Your task to perform on an android device: clear all cookies in the chrome app Image 0: 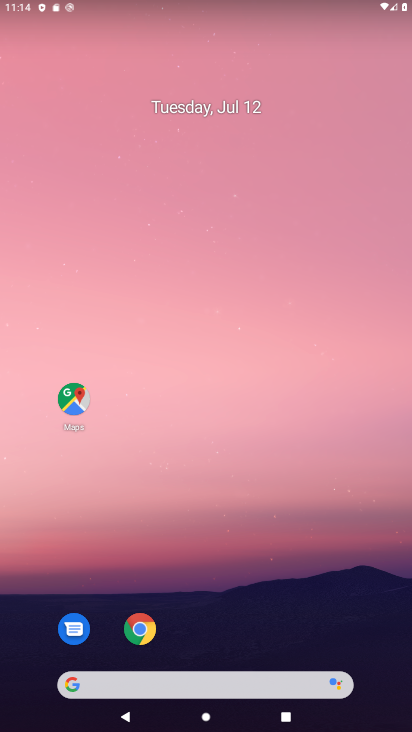
Step 0: drag from (222, 189) to (157, 140)
Your task to perform on an android device: clear all cookies in the chrome app Image 1: 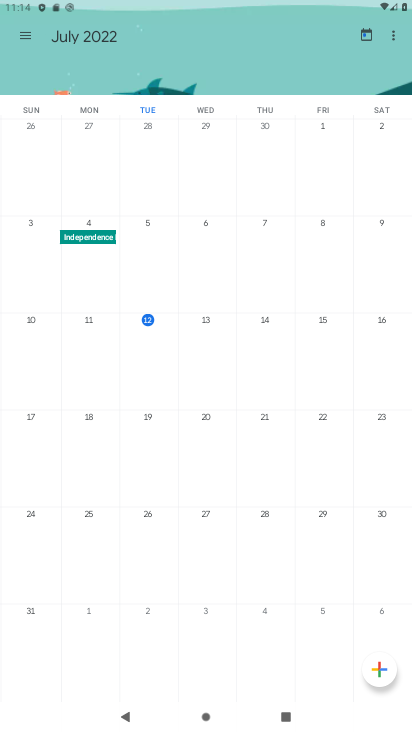
Step 1: press home button
Your task to perform on an android device: clear all cookies in the chrome app Image 2: 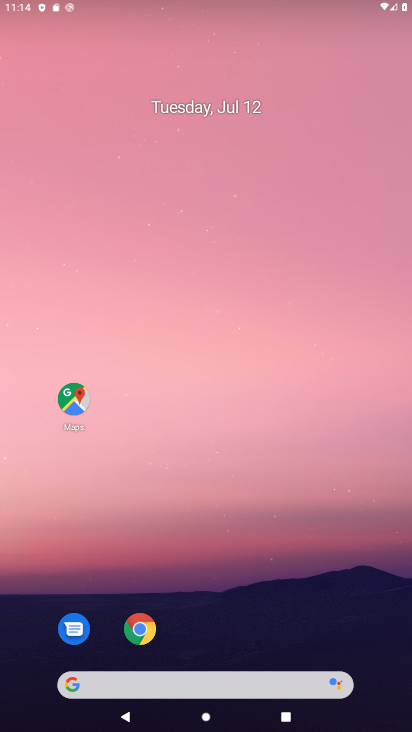
Step 2: drag from (190, 674) to (178, 270)
Your task to perform on an android device: clear all cookies in the chrome app Image 3: 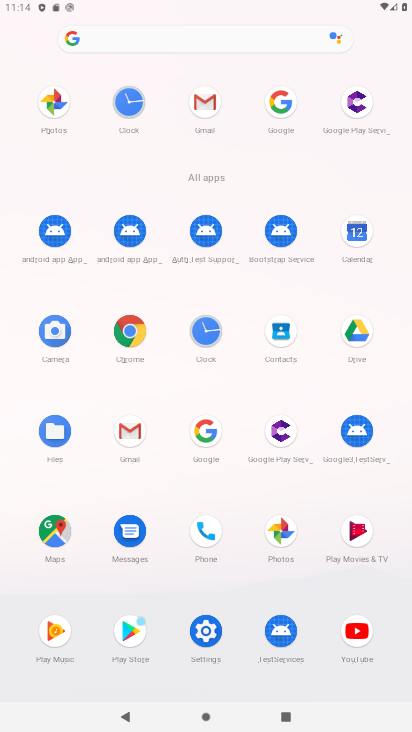
Step 3: click (127, 333)
Your task to perform on an android device: clear all cookies in the chrome app Image 4: 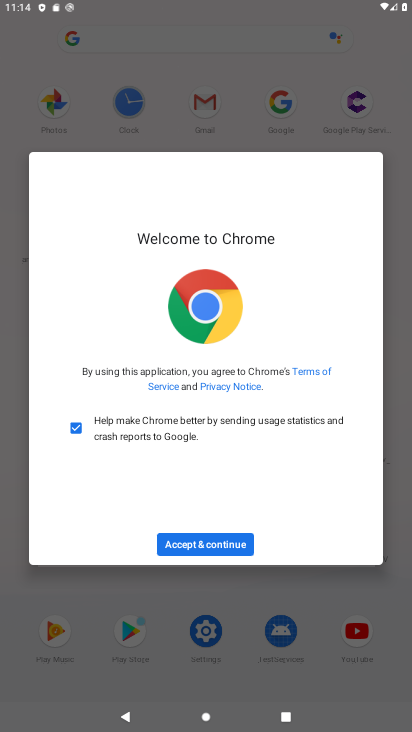
Step 4: click (202, 555)
Your task to perform on an android device: clear all cookies in the chrome app Image 5: 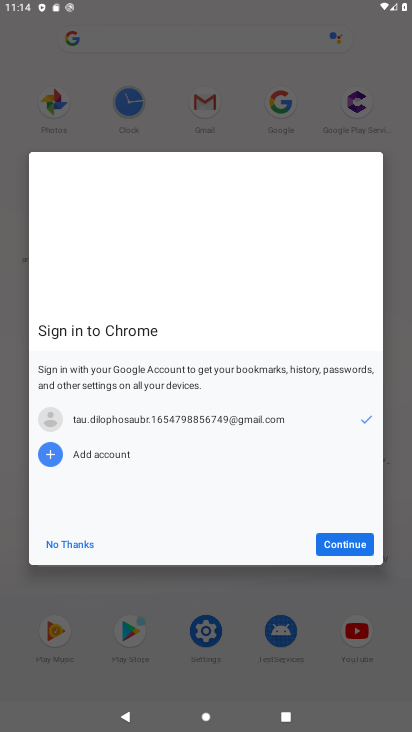
Step 5: click (342, 549)
Your task to perform on an android device: clear all cookies in the chrome app Image 6: 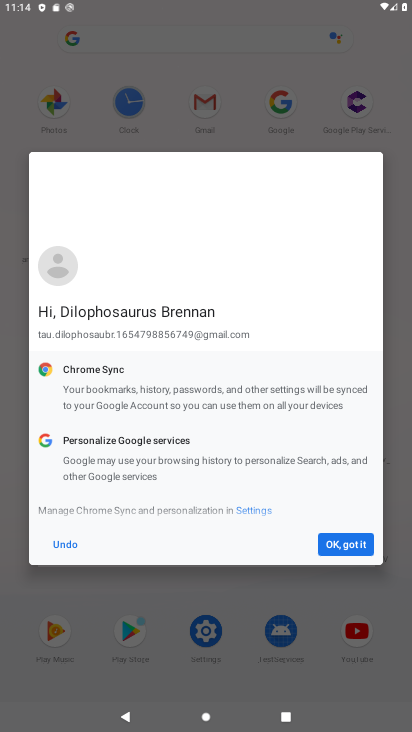
Step 6: click (342, 549)
Your task to perform on an android device: clear all cookies in the chrome app Image 7: 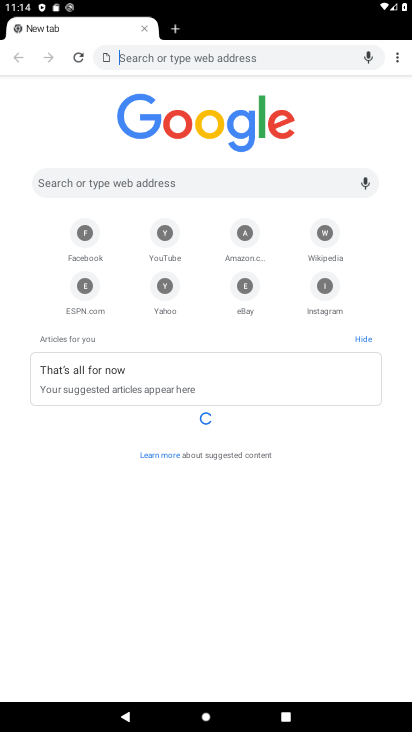
Step 7: click (392, 57)
Your task to perform on an android device: clear all cookies in the chrome app Image 8: 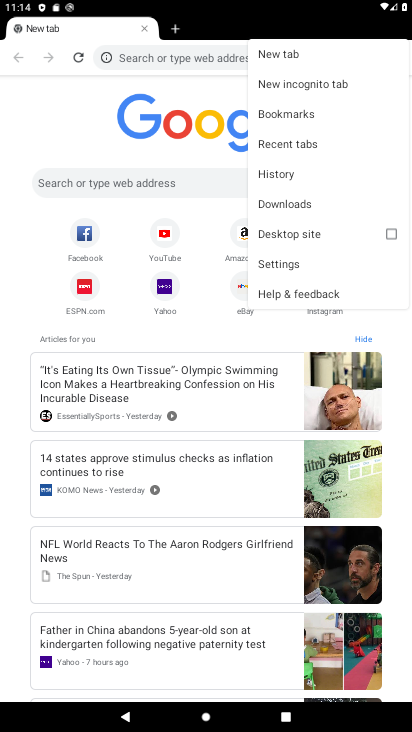
Step 8: click (286, 262)
Your task to perform on an android device: clear all cookies in the chrome app Image 9: 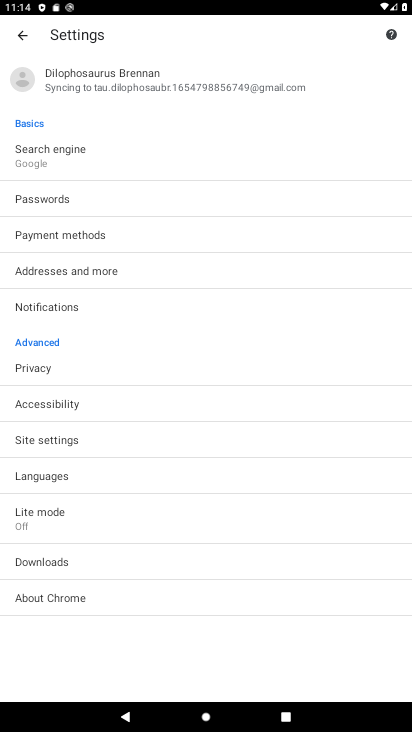
Step 9: click (28, 375)
Your task to perform on an android device: clear all cookies in the chrome app Image 10: 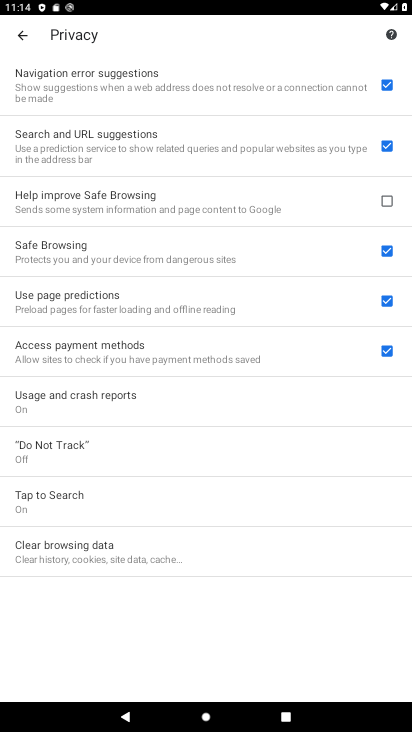
Step 10: click (144, 561)
Your task to perform on an android device: clear all cookies in the chrome app Image 11: 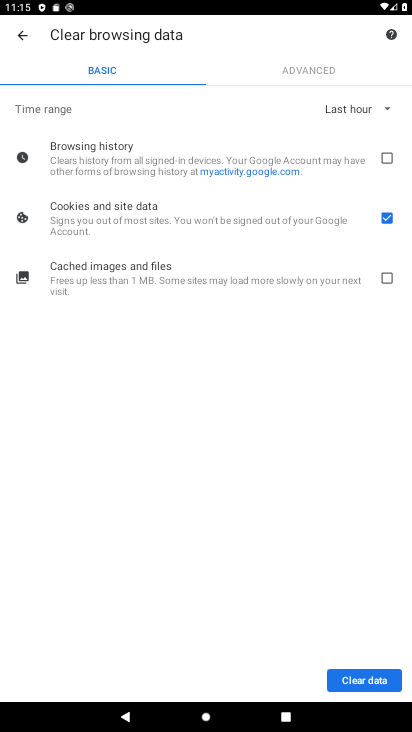
Step 11: click (386, 158)
Your task to perform on an android device: clear all cookies in the chrome app Image 12: 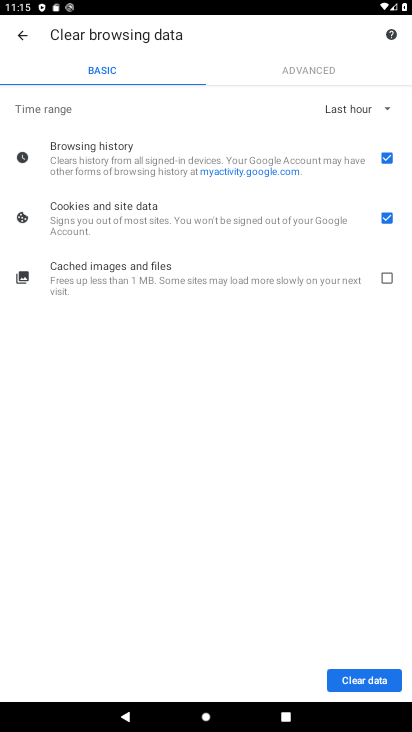
Step 12: click (391, 275)
Your task to perform on an android device: clear all cookies in the chrome app Image 13: 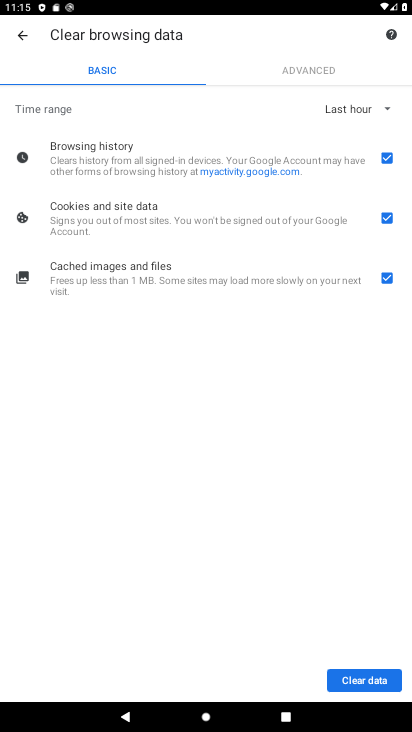
Step 13: click (384, 159)
Your task to perform on an android device: clear all cookies in the chrome app Image 14: 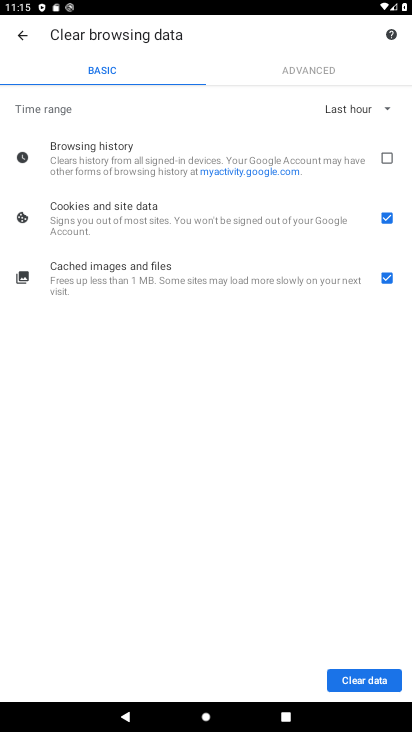
Step 14: click (384, 276)
Your task to perform on an android device: clear all cookies in the chrome app Image 15: 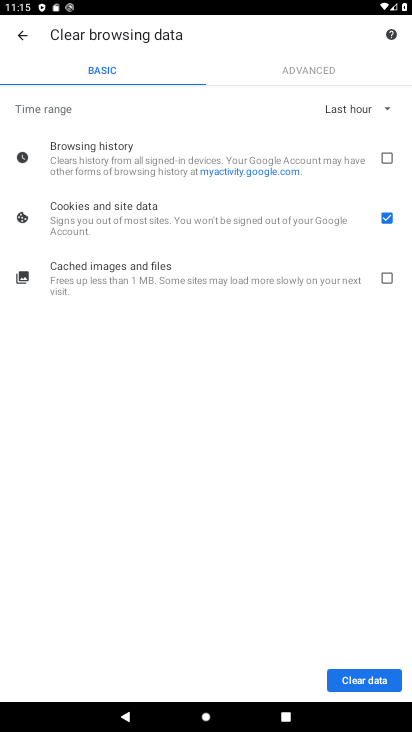
Step 15: click (359, 100)
Your task to perform on an android device: clear all cookies in the chrome app Image 16: 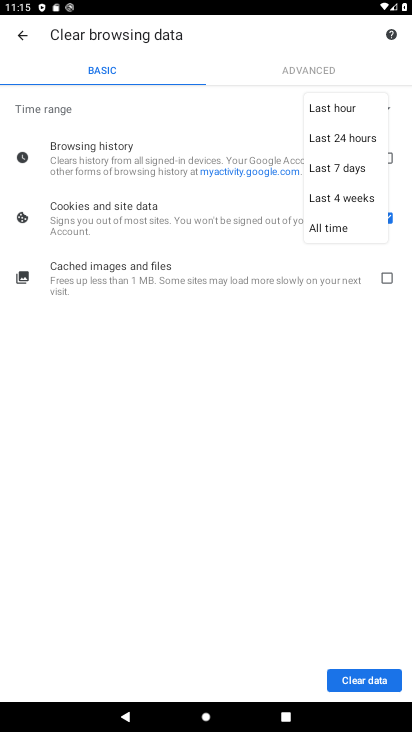
Step 16: click (343, 224)
Your task to perform on an android device: clear all cookies in the chrome app Image 17: 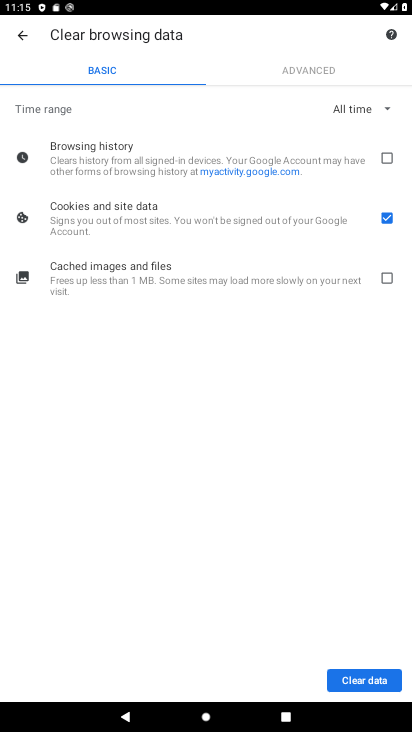
Step 17: click (373, 679)
Your task to perform on an android device: clear all cookies in the chrome app Image 18: 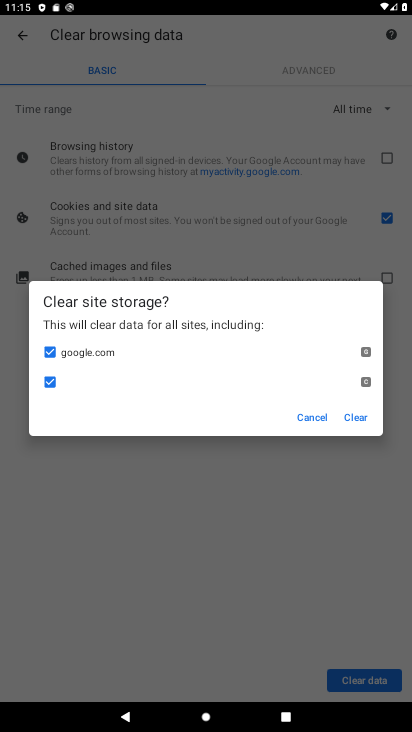
Step 18: click (350, 420)
Your task to perform on an android device: clear all cookies in the chrome app Image 19: 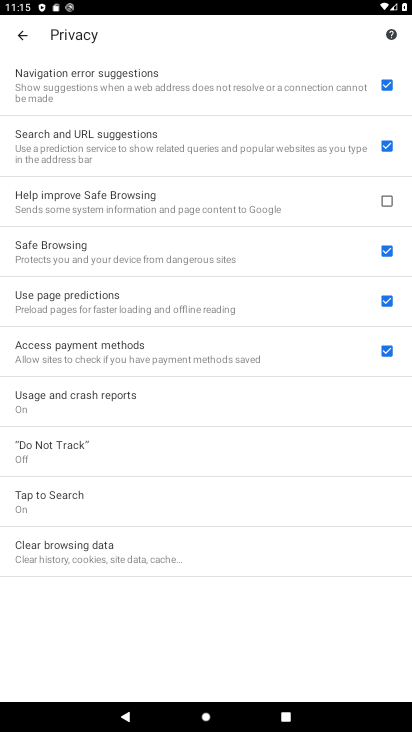
Step 19: task complete